Your task to perform on an android device: read, delete, or share a saved page in the chrome app Image 0: 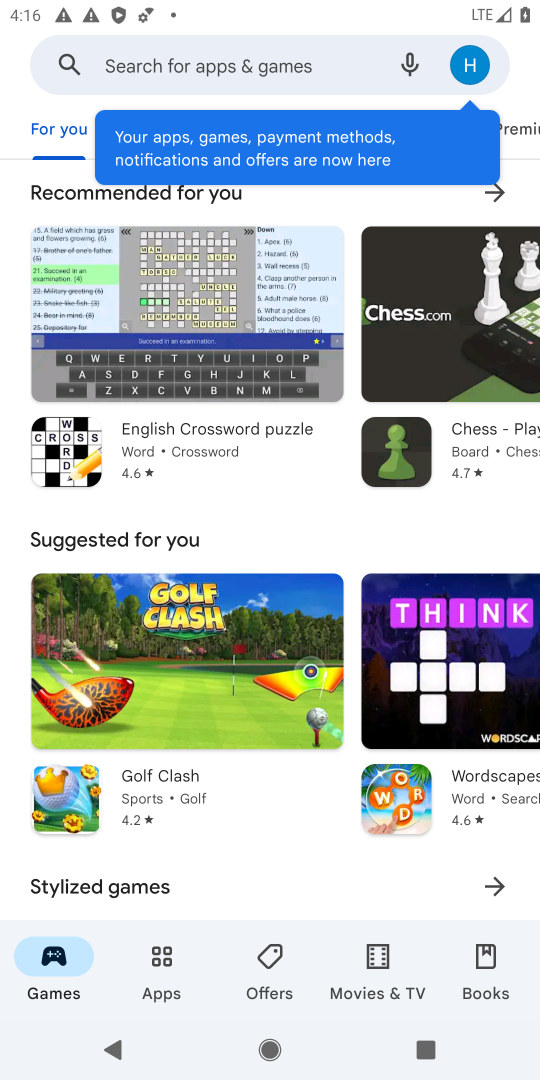
Step 0: press home button
Your task to perform on an android device: read, delete, or share a saved page in the chrome app Image 1: 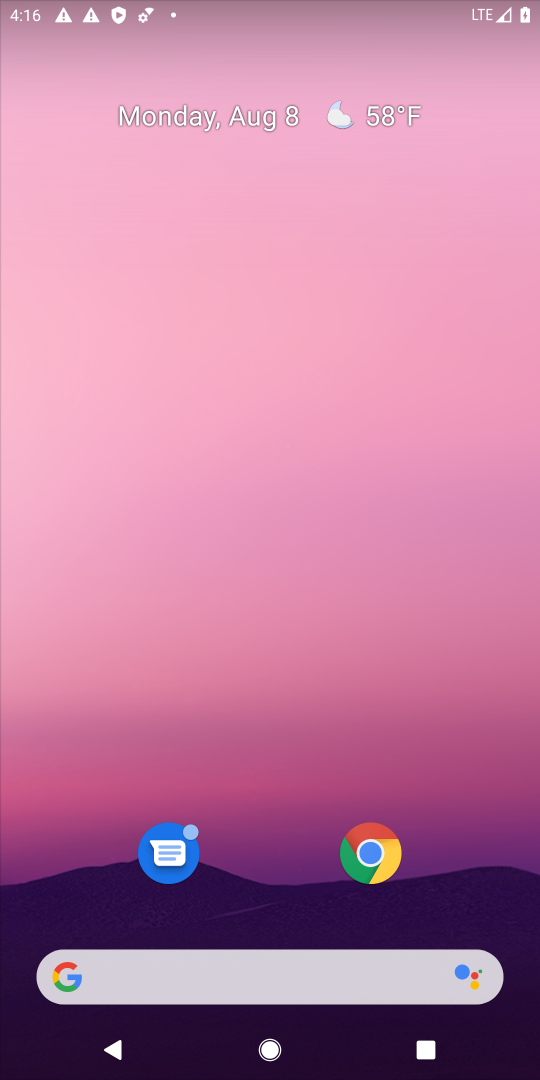
Step 1: drag from (293, 906) to (362, 216)
Your task to perform on an android device: read, delete, or share a saved page in the chrome app Image 2: 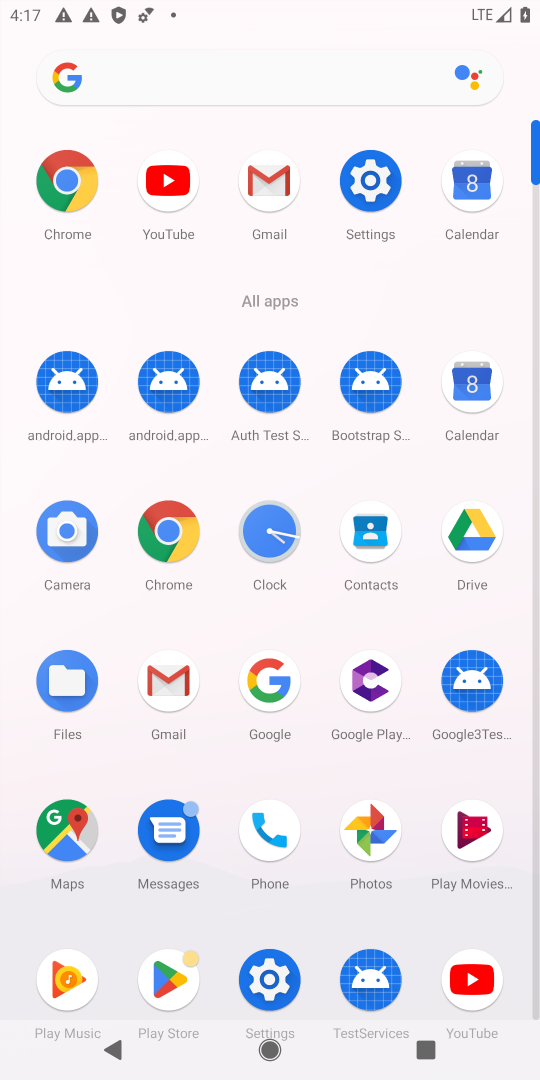
Step 2: click (167, 511)
Your task to perform on an android device: read, delete, or share a saved page in the chrome app Image 3: 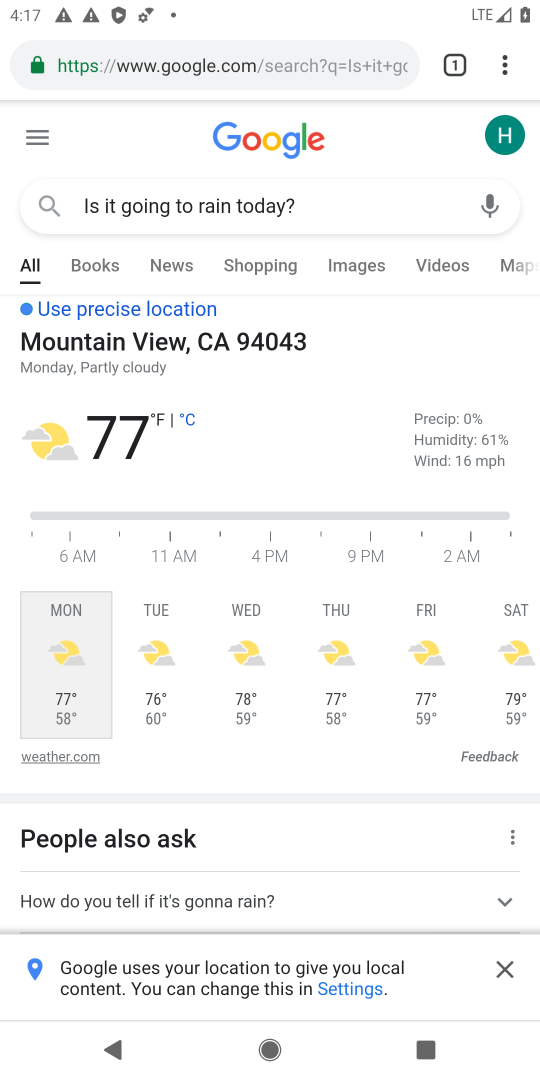
Step 3: drag from (508, 65) to (317, 71)
Your task to perform on an android device: read, delete, or share a saved page in the chrome app Image 4: 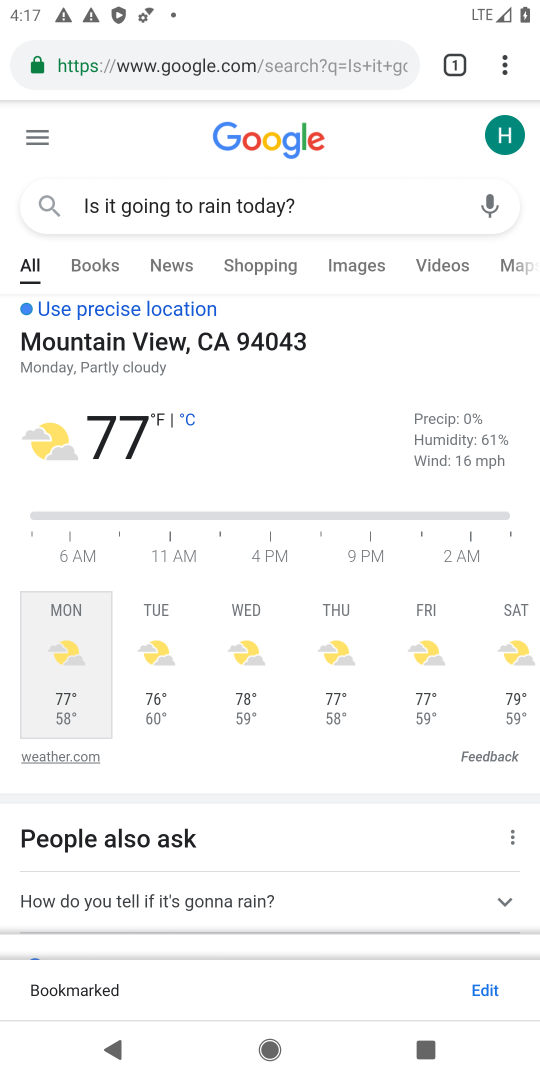
Step 4: drag from (516, 64) to (477, 143)
Your task to perform on an android device: read, delete, or share a saved page in the chrome app Image 5: 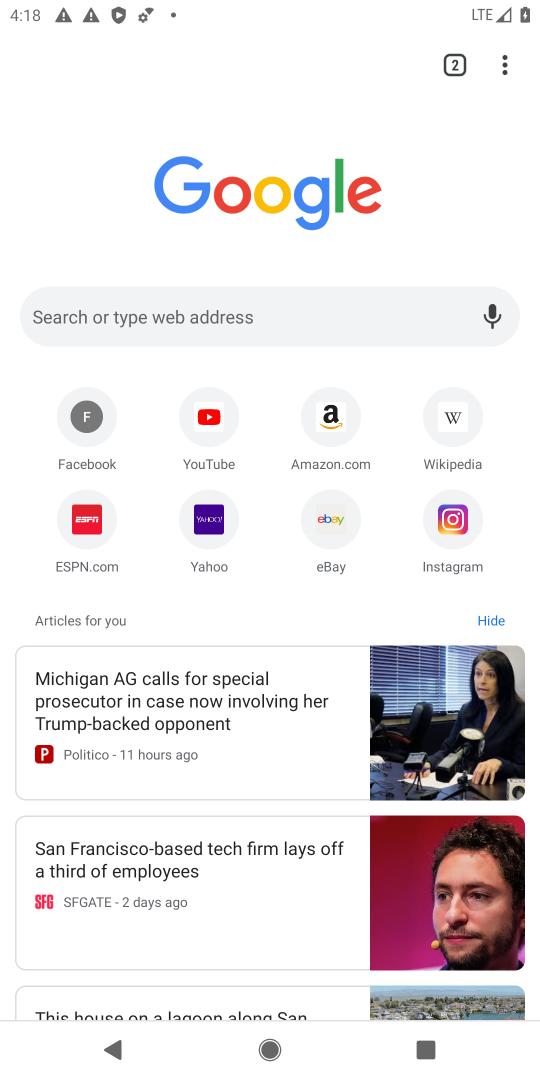
Step 5: drag from (513, 59) to (289, 81)
Your task to perform on an android device: read, delete, or share a saved page in the chrome app Image 6: 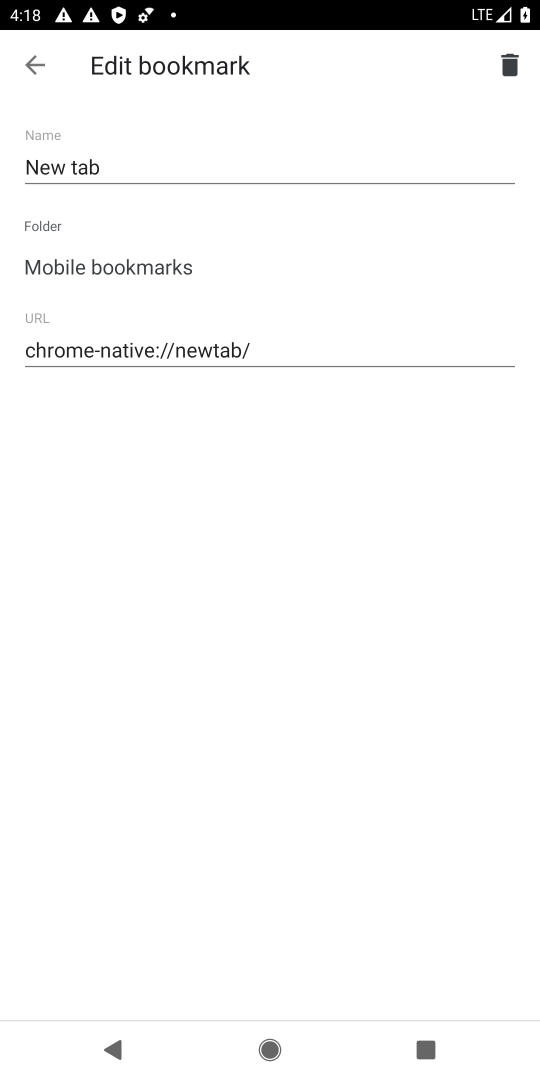
Step 6: click (38, 64)
Your task to perform on an android device: read, delete, or share a saved page in the chrome app Image 7: 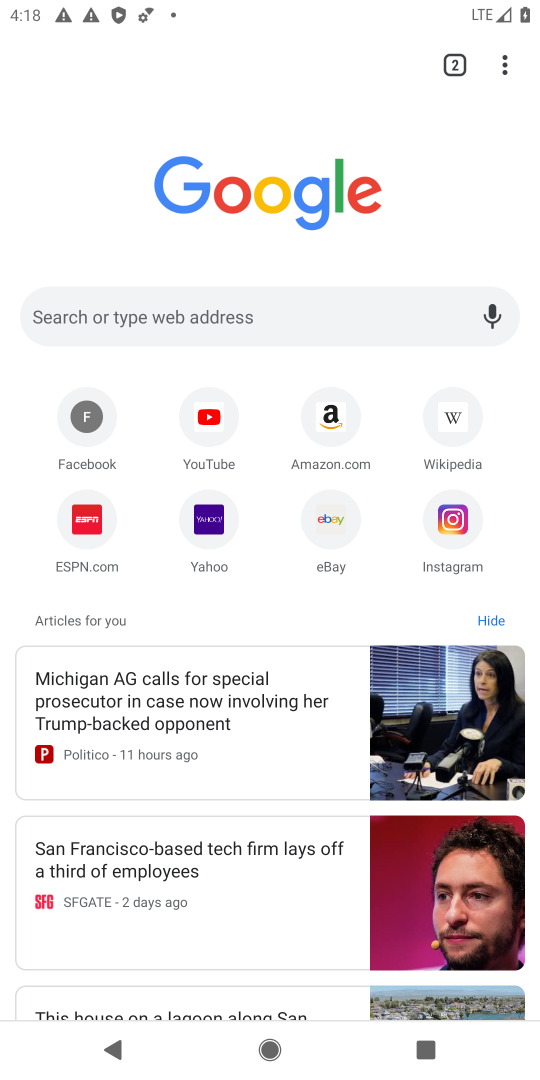
Step 7: task complete